Your task to perform on an android device: Open the calendar app, open the side menu, and click the "Day" option Image 0: 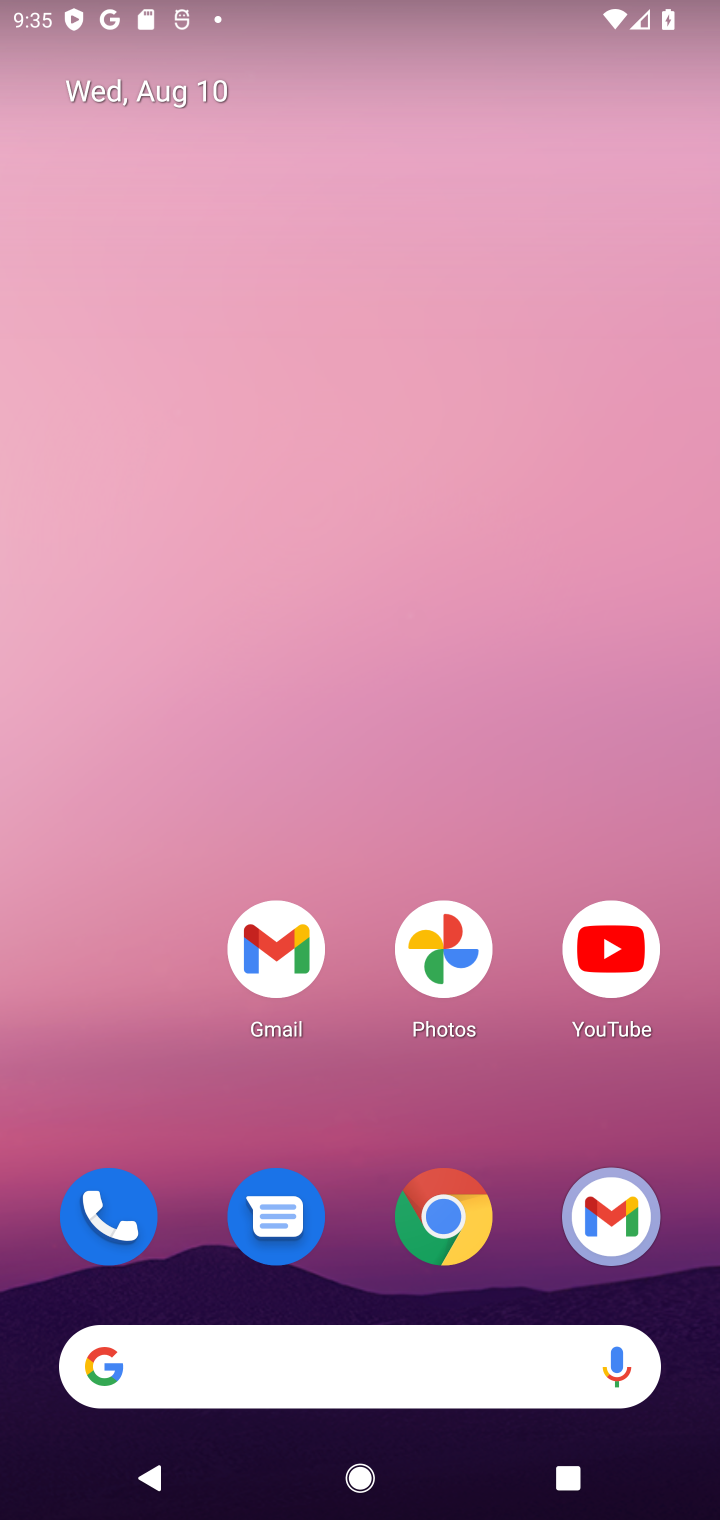
Step 0: drag from (162, 609) to (282, 280)
Your task to perform on an android device: Open the calendar app, open the side menu, and click the "Day" option Image 1: 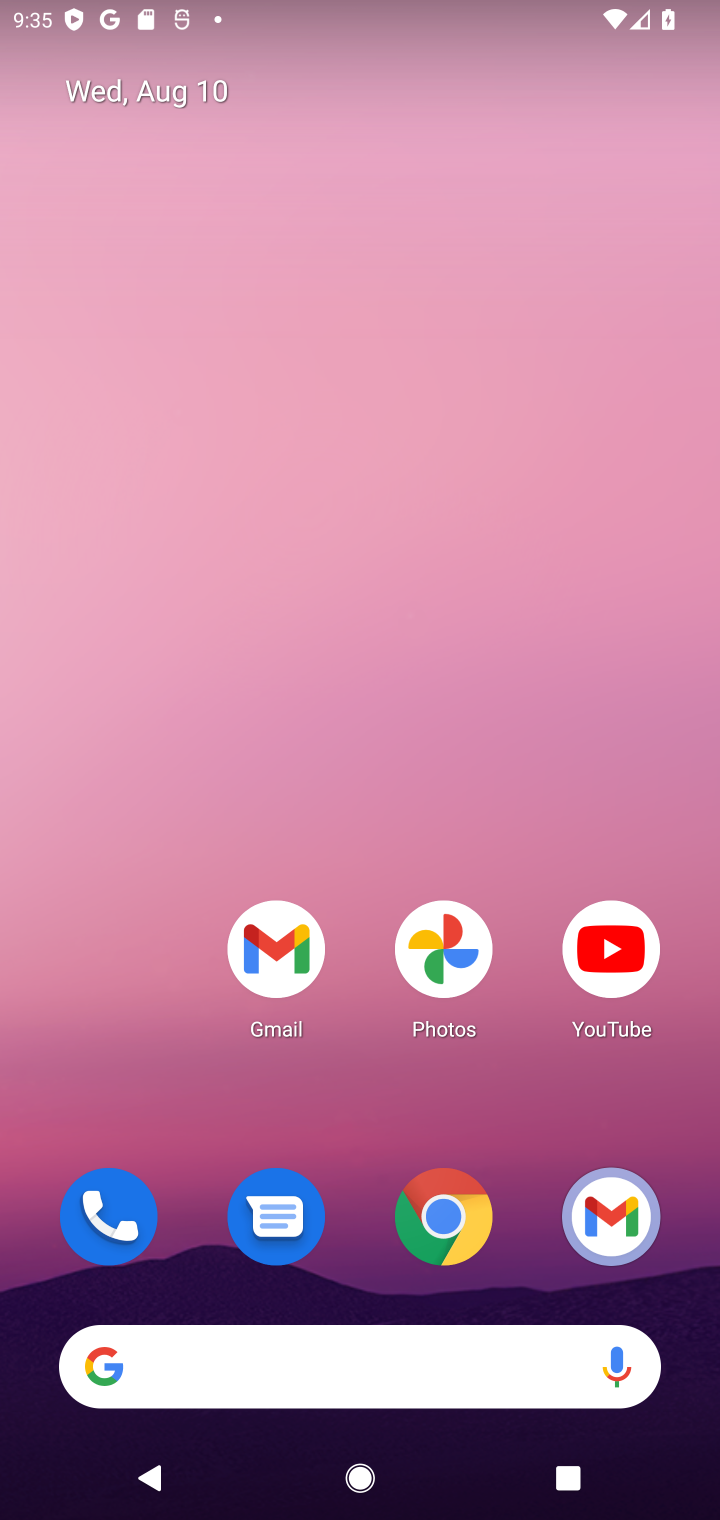
Step 1: drag from (125, 837) to (381, 243)
Your task to perform on an android device: Open the calendar app, open the side menu, and click the "Day" option Image 2: 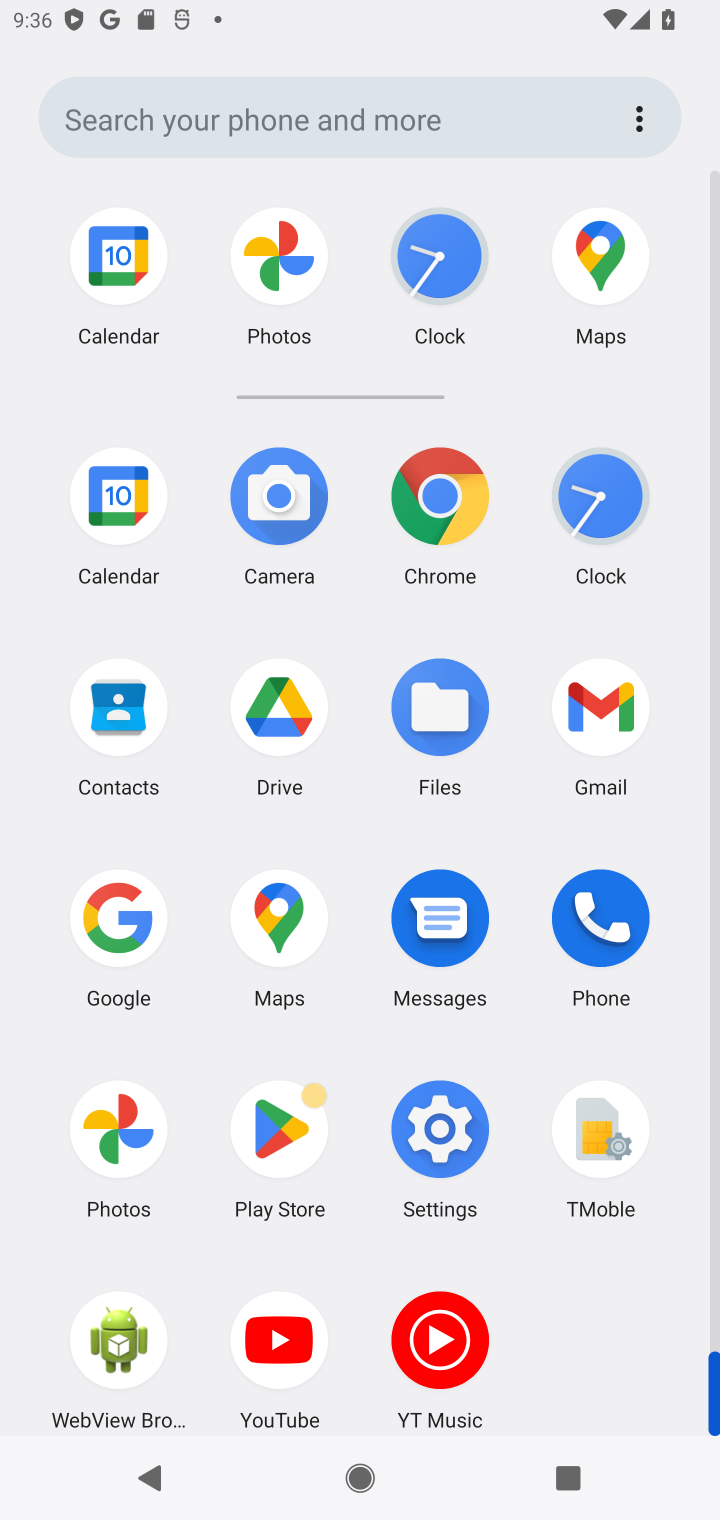
Step 2: click (113, 533)
Your task to perform on an android device: Open the calendar app, open the side menu, and click the "Day" option Image 3: 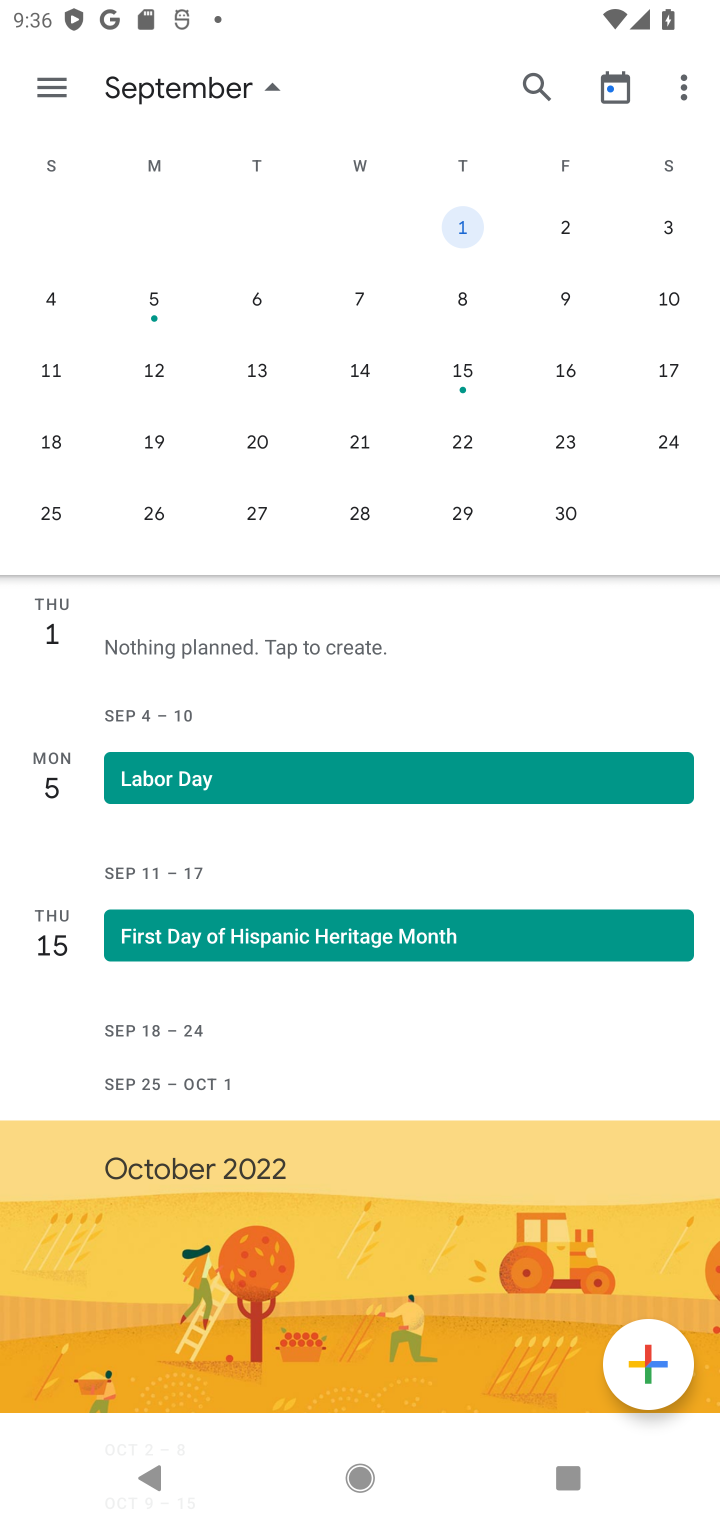
Step 3: click (53, 93)
Your task to perform on an android device: Open the calendar app, open the side menu, and click the "Day" option Image 4: 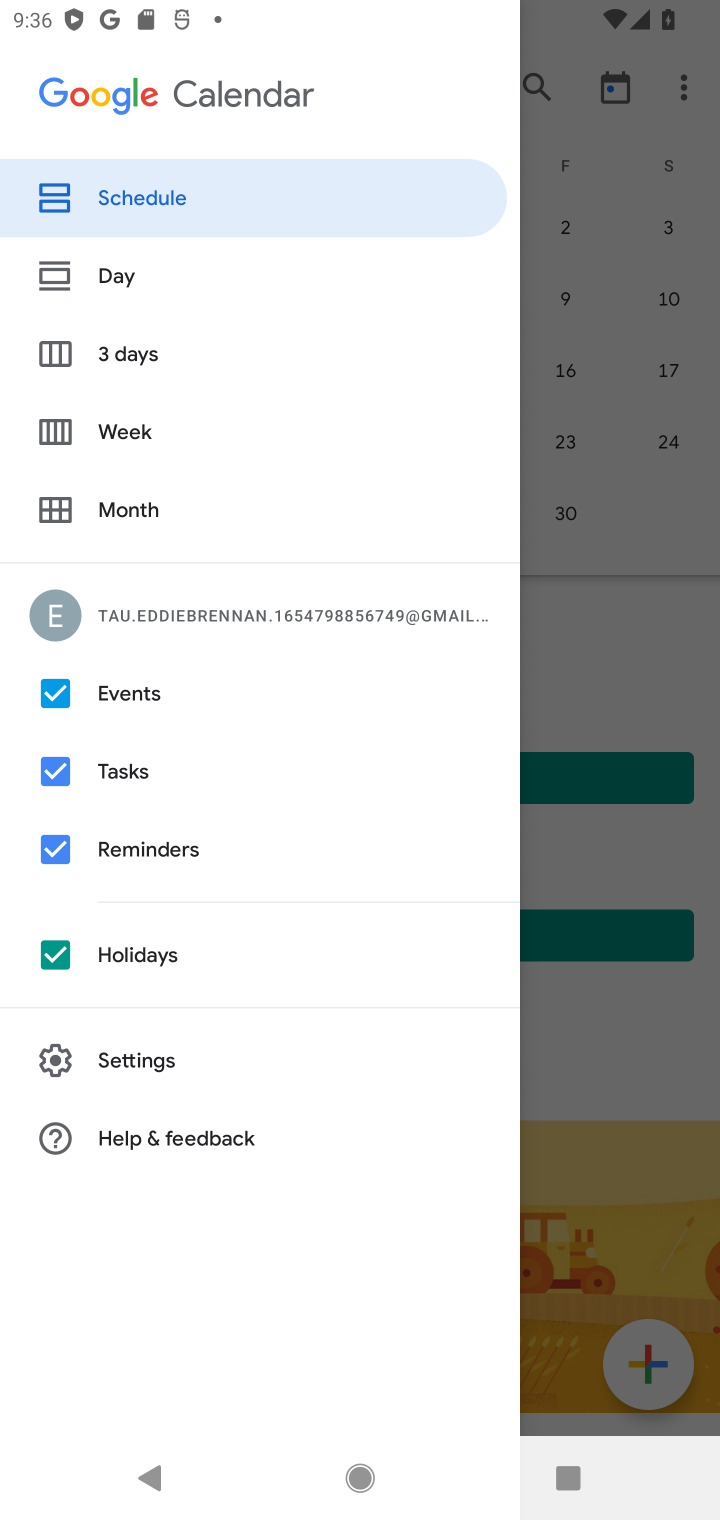
Step 4: click (194, 267)
Your task to perform on an android device: Open the calendar app, open the side menu, and click the "Day" option Image 5: 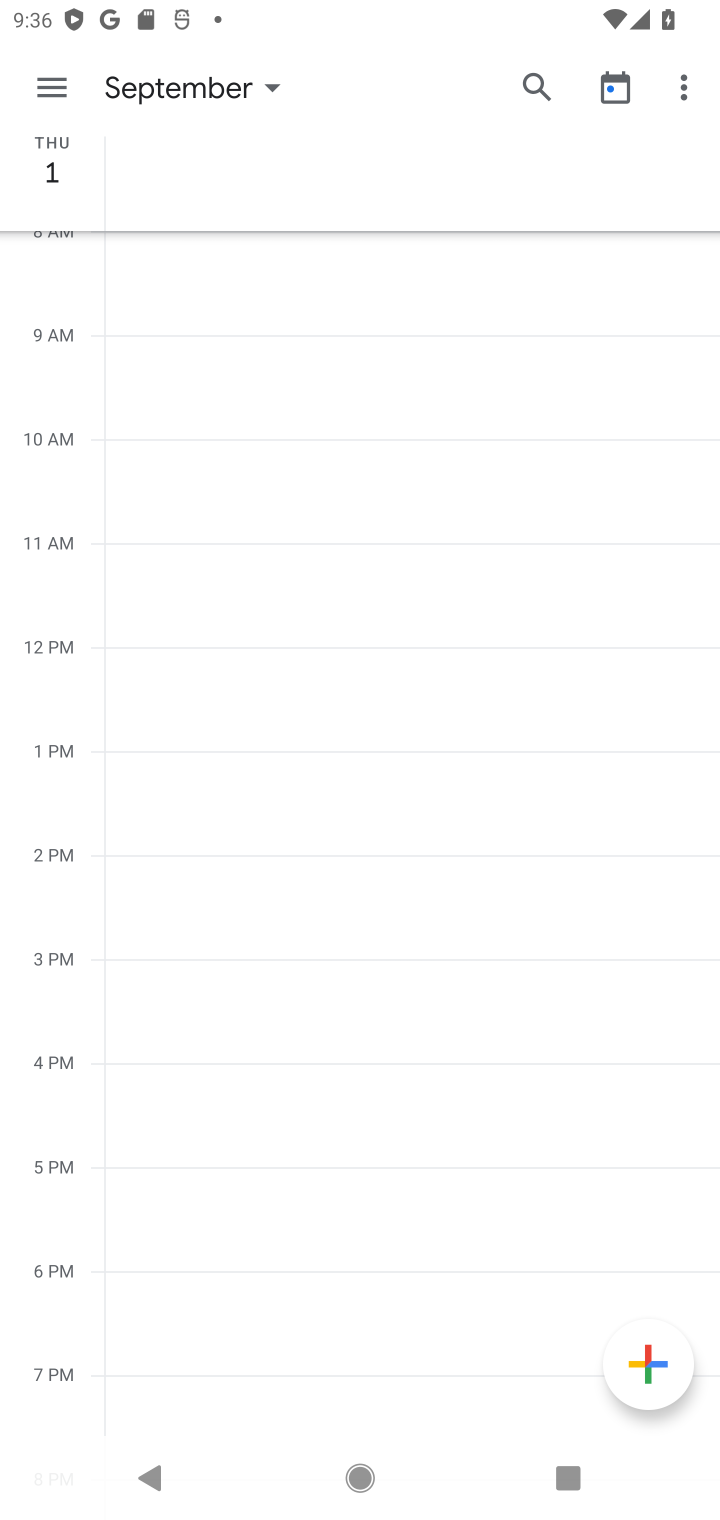
Step 5: task complete